Your task to perform on an android device: Open Chrome and go to settings Image 0: 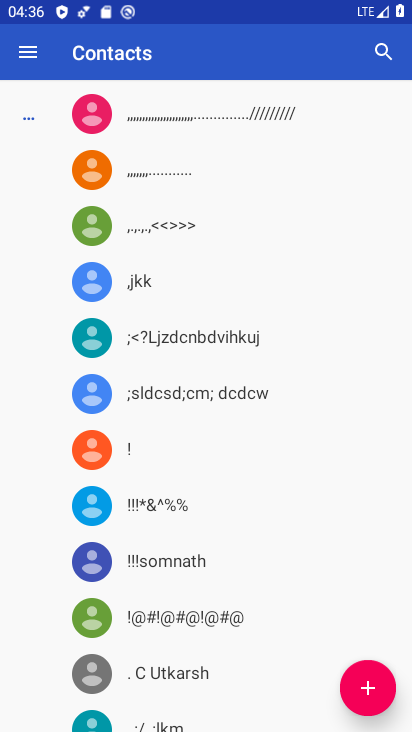
Step 0: press back button
Your task to perform on an android device: Open Chrome and go to settings Image 1: 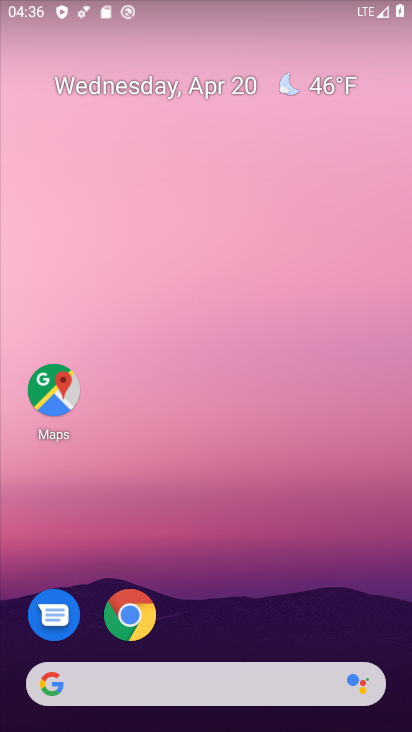
Step 1: drag from (191, 610) to (280, 26)
Your task to perform on an android device: Open Chrome and go to settings Image 2: 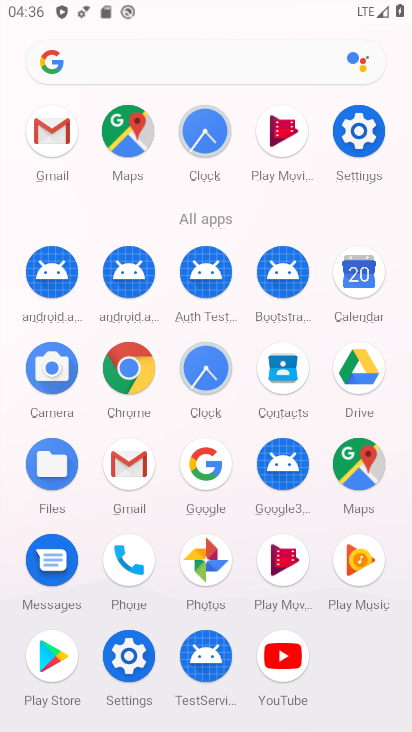
Step 2: click (119, 352)
Your task to perform on an android device: Open Chrome and go to settings Image 3: 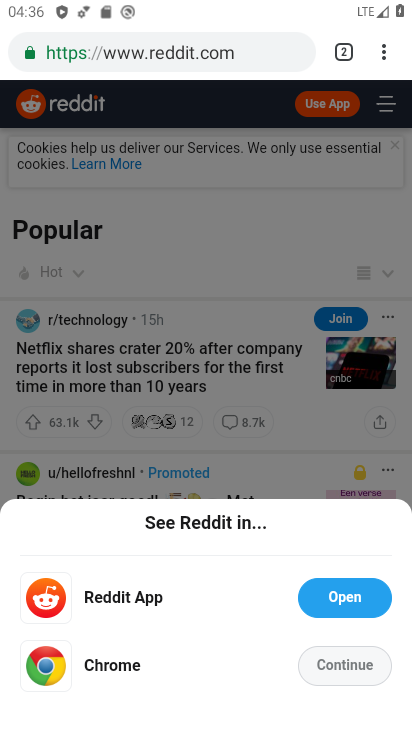
Step 3: click (245, 230)
Your task to perform on an android device: Open Chrome and go to settings Image 4: 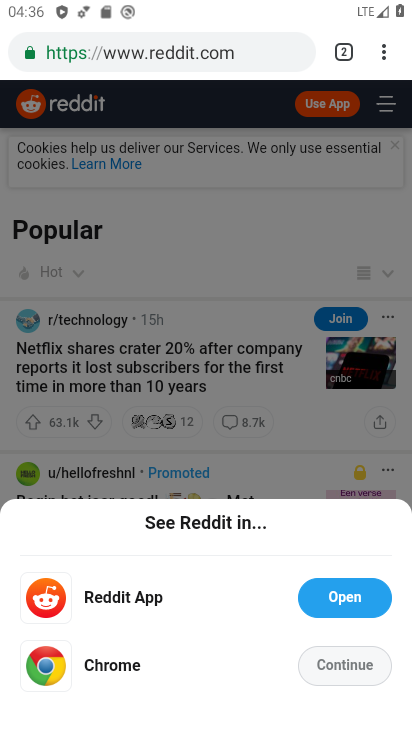
Step 4: task complete